Your task to perform on an android device: turn on priority inbox in the gmail app Image 0: 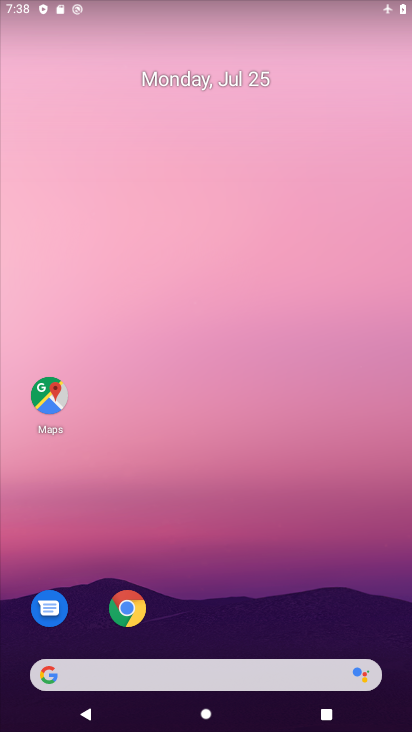
Step 0: drag from (343, 520) to (126, 2)
Your task to perform on an android device: turn on priority inbox in the gmail app Image 1: 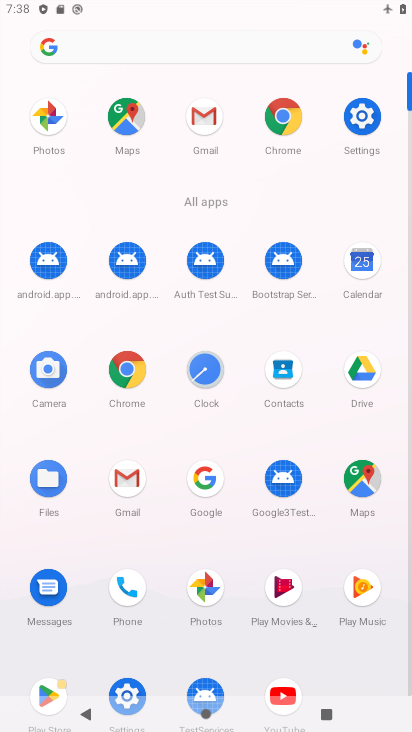
Step 1: click (201, 122)
Your task to perform on an android device: turn on priority inbox in the gmail app Image 2: 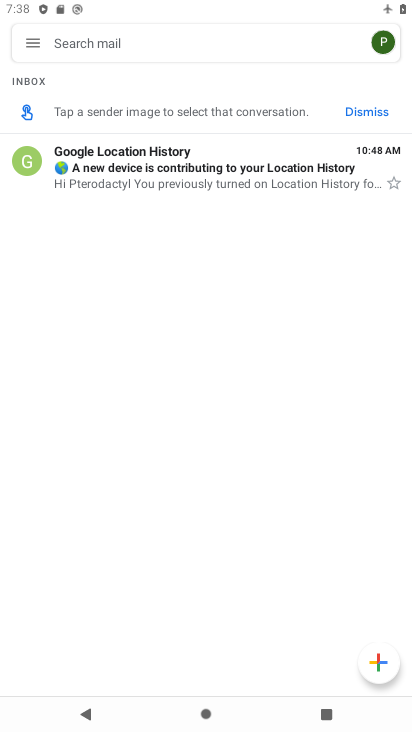
Step 2: click (25, 39)
Your task to perform on an android device: turn on priority inbox in the gmail app Image 3: 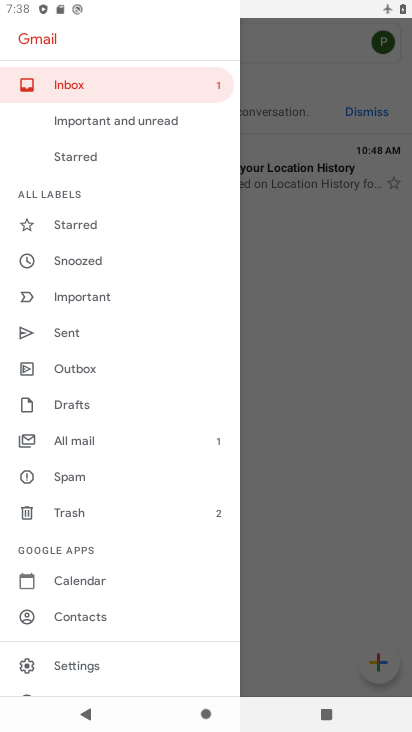
Step 3: drag from (102, 648) to (94, 307)
Your task to perform on an android device: turn on priority inbox in the gmail app Image 4: 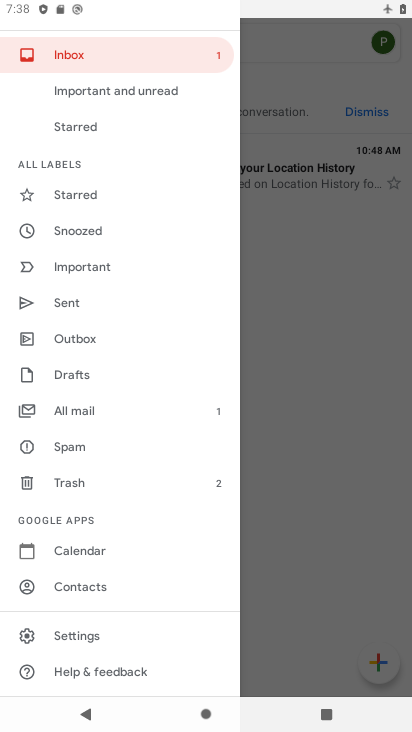
Step 4: click (80, 637)
Your task to perform on an android device: turn on priority inbox in the gmail app Image 5: 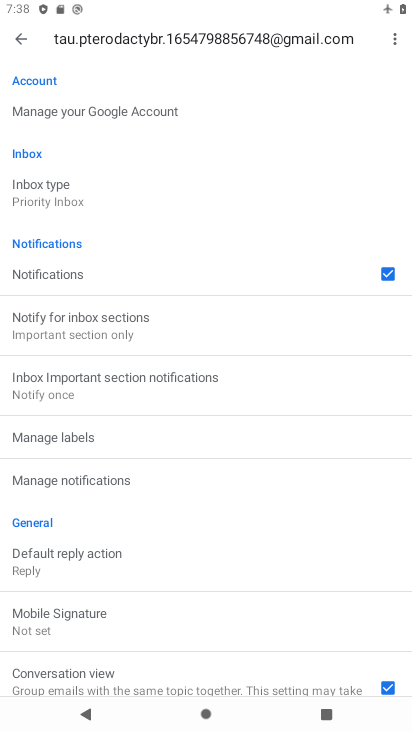
Step 5: click (80, 193)
Your task to perform on an android device: turn on priority inbox in the gmail app Image 6: 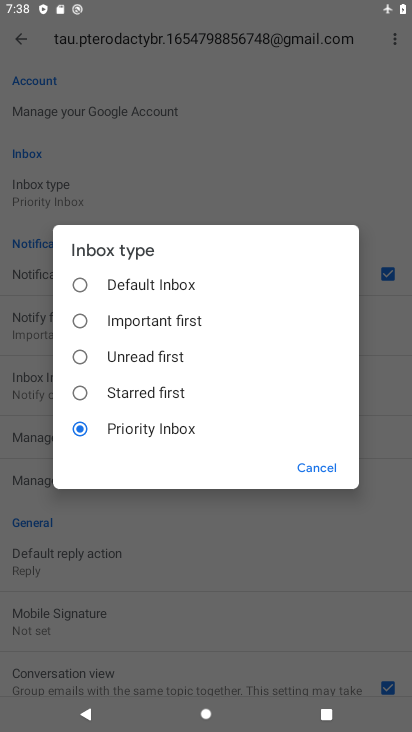
Step 6: task complete